Your task to perform on an android device: change alarm snooze length Image 0: 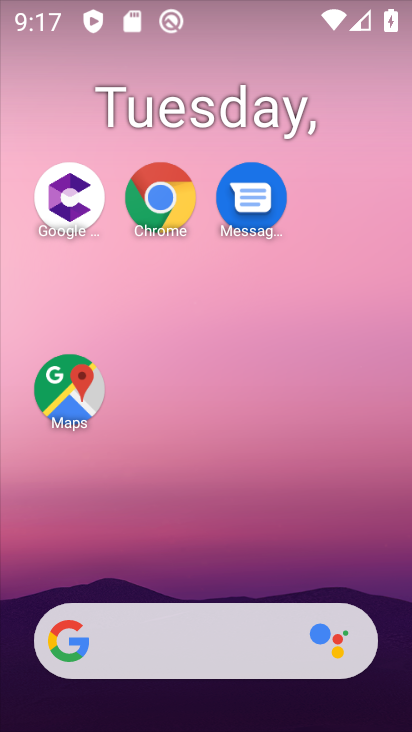
Step 0: drag from (194, 599) to (164, 11)
Your task to perform on an android device: change alarm snooze length Image 1: 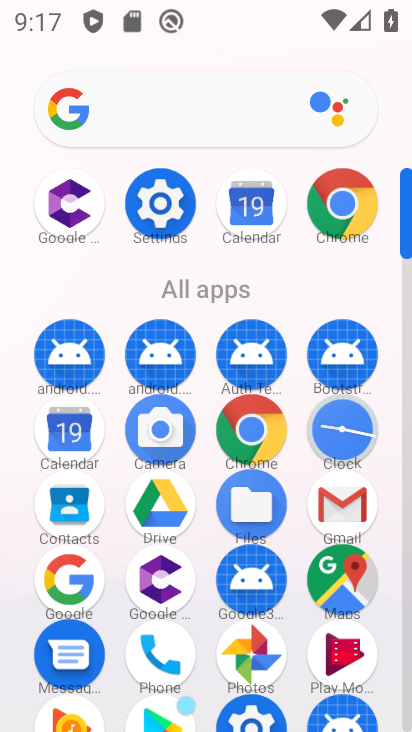
Step 1: click (354, 445)
Your task to perform on an android device: change alarm snooze length Image 2: 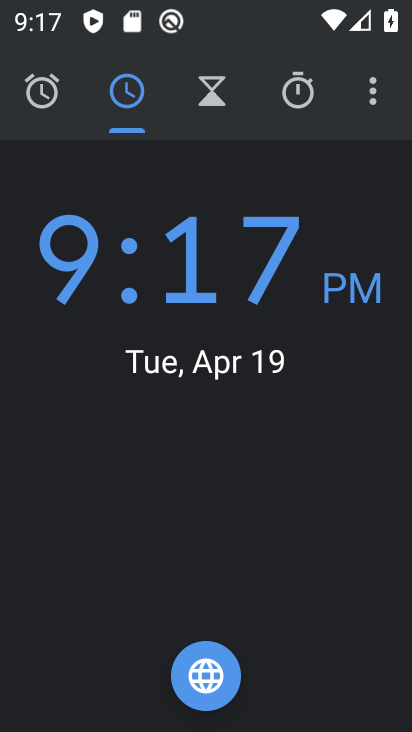
Step 2: click (372, 94)
Your task to perform on an android device: change alarm snooze length Image 3: 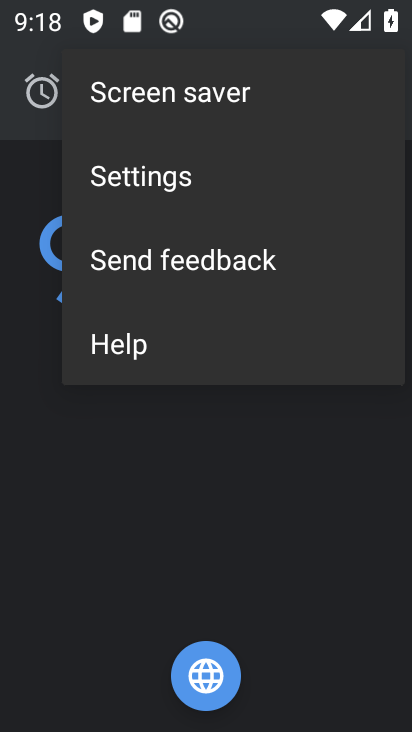
Step 3: click (158, 189)
Your task to perform on an android device: change alarm snooze length Image 4: 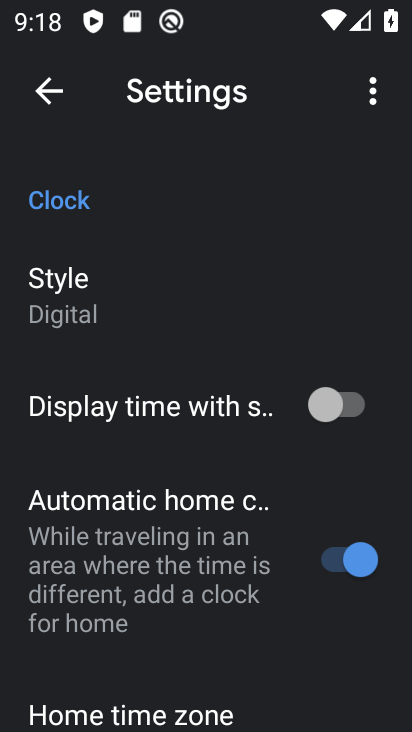
Step 4: drag from (249, 606) to (190, 131)
Your task to perform on an android device: change alarm snooze length Image 5: 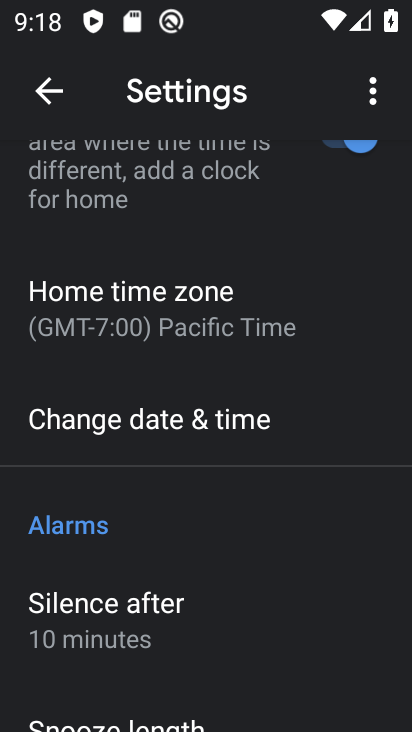
Step 5: drag from (233, 581) to (179, 232)
Your task to perform on an android device: change alarm snooze length Image 6: 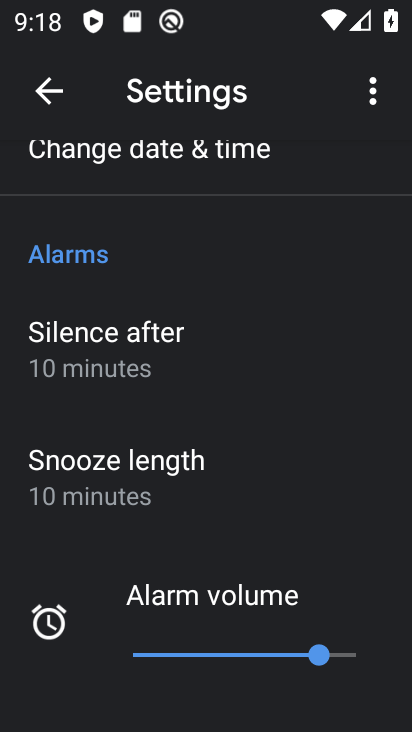
Step 6: click (169, 452)
Your task to perform on an android device: change alarm snooze length Image 7: 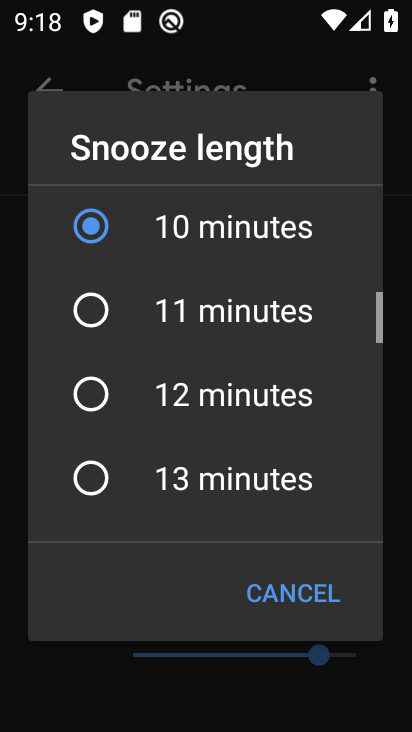
Step 7: click (161, 325)
Your task to perform on an android device: change alarm snooze length Image 8: 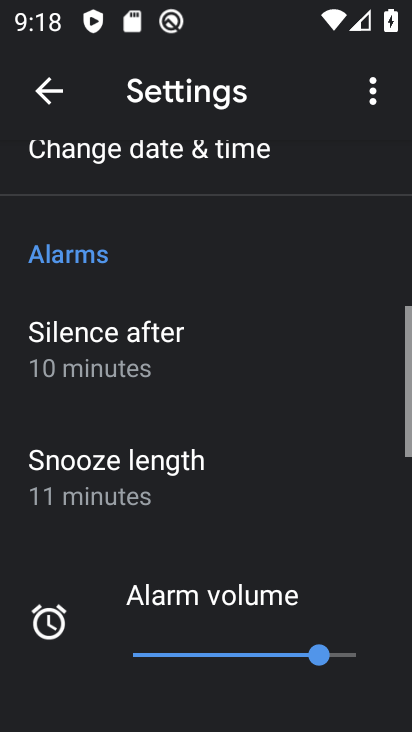
Step 8: task complete